Your task to perform on an android device: open wifi settings Image 0: 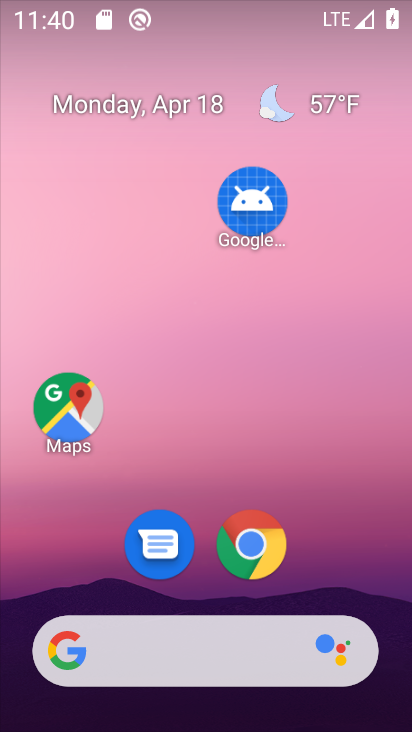
Step 0: drag from (260, 437) to (302, 175)
Your task to perform on an android device: open wifi settings Image 1: 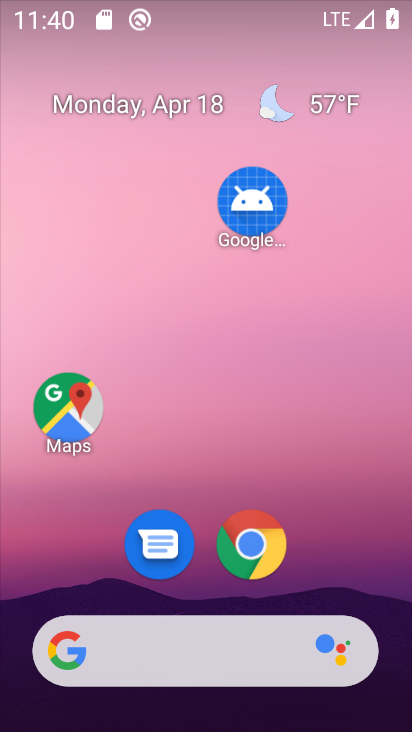
Step 1: drag from (253, 664) to (245, 271)
Your task to perform on an android device: open wifi settings Image 2: 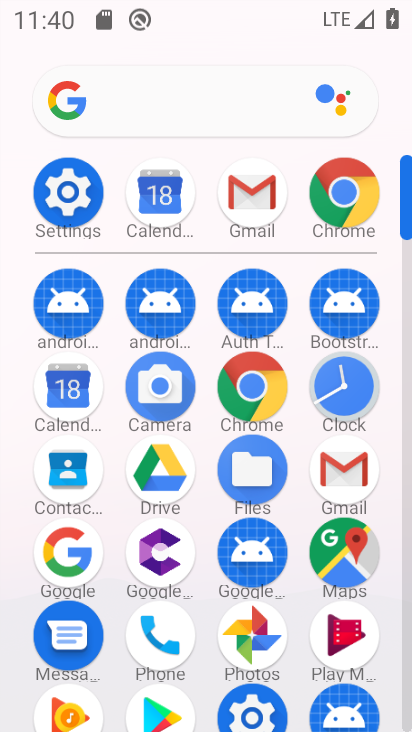
Step 2: click (250, 702)
Your task to perform on an android device: open wifi settings Image 3: 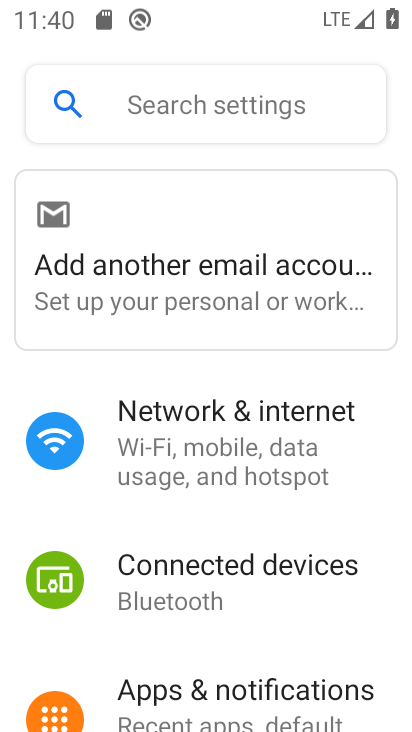
Step 3: drag from (198, 647) to (285, 131)
Your task to perform on an android device: open wifi settings Image 4: 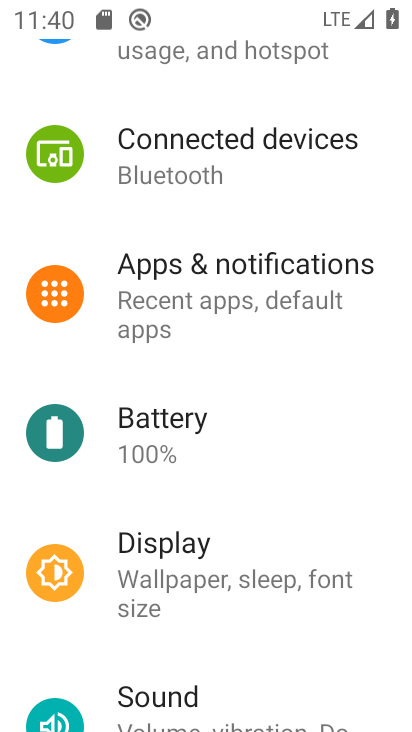
Step 4: drag from (158, 193) to (151, 657)
Your task to perform on an android device: open wifi settings Image 5: 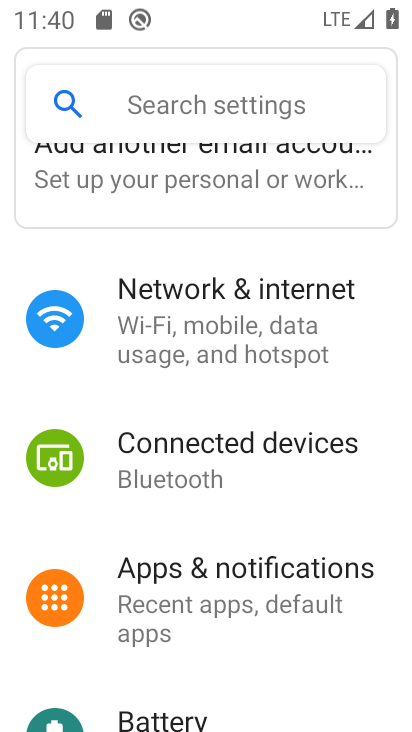
Step 5: click (183, 287)
Your task to perform on an android device: open wifi settings Image 6: 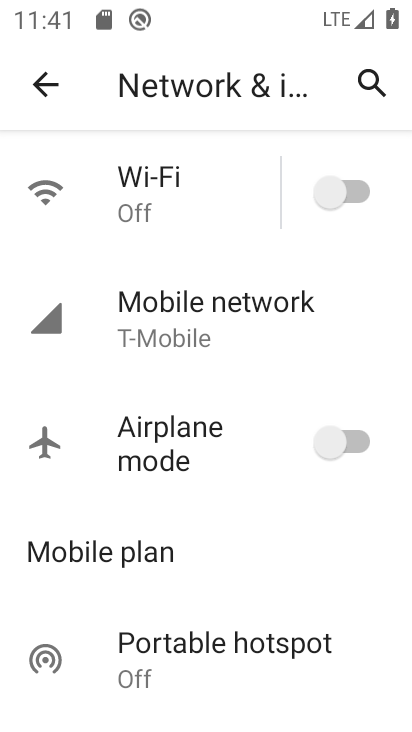
Step 6: drag from (167, 544) to (257, 202)
Your task to perform on an android device: open wifi settings Image 7: 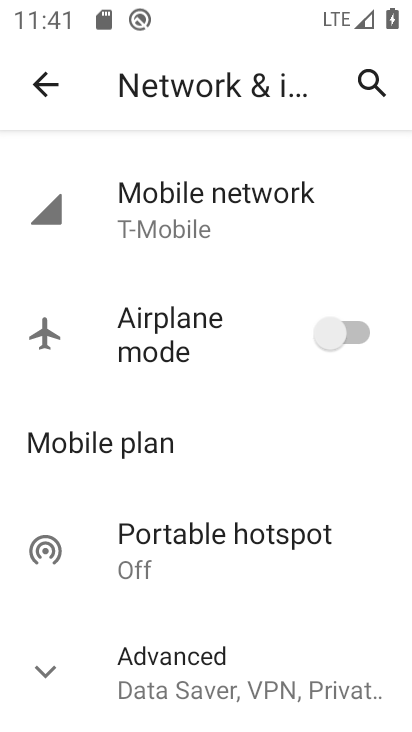
Step 7: drag from (190, 262) to (159, 648)
Your task to perform on an android device: open wifi settings Image 8: 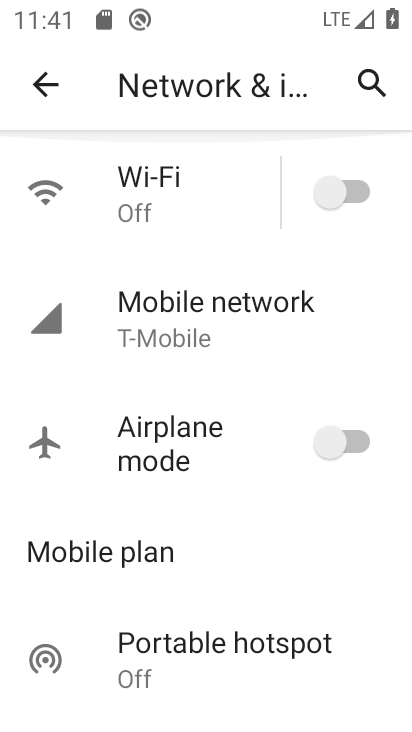
Step 8: click (151, 169)
Your task to perform on an android device: open wifi settings Image 9: 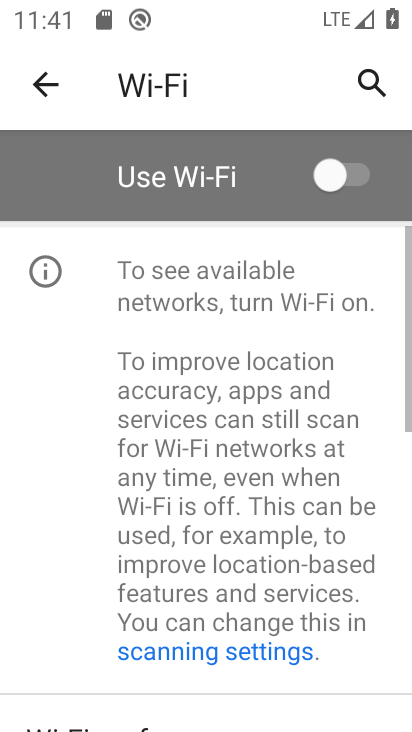
Step 9: task complete